Your task to perform on an android device: search for accent chairs on article.com Image 0: 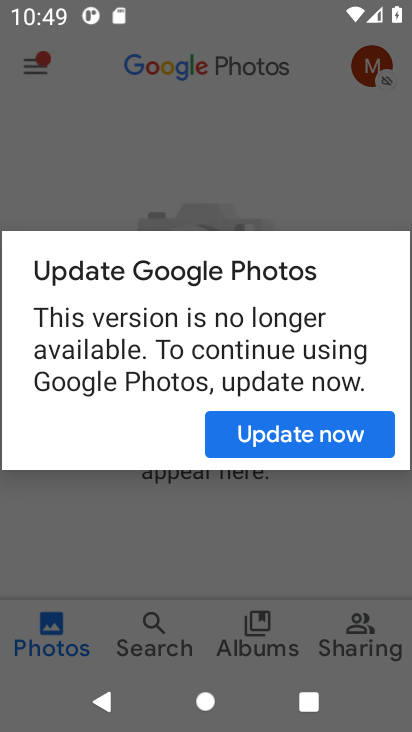
Step 0: press home button
Your task to perform on an android device: search for accent chairs on article.com Image 1: 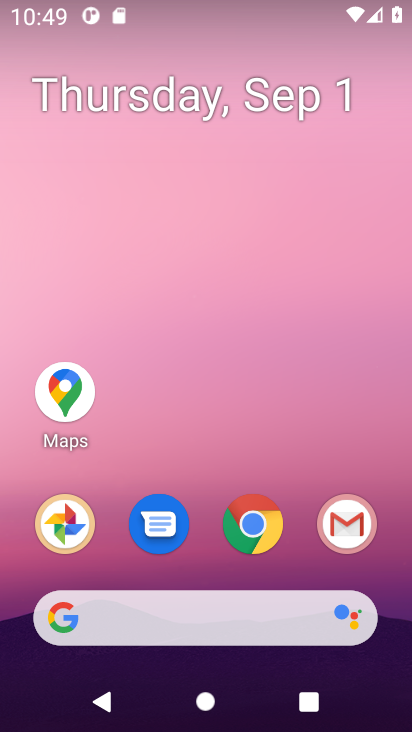
Step 1: click (218, 617)
Your task to perform on an android device: search for accent chairs on article.com Image 2: 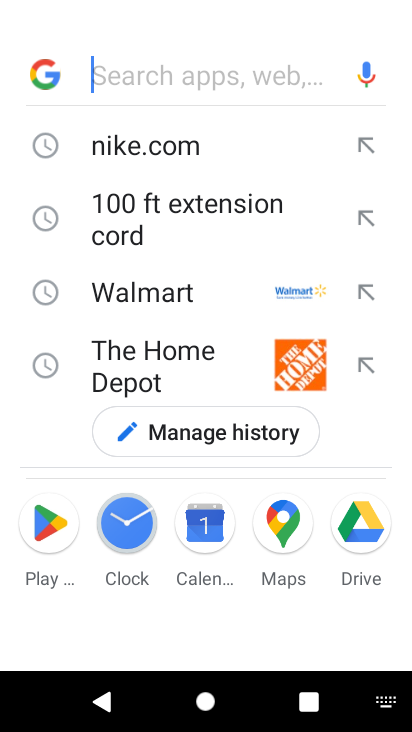
Step 2: type "article.com"
Your task to perform on an android device: search for accent chairs on article.com Image 3: 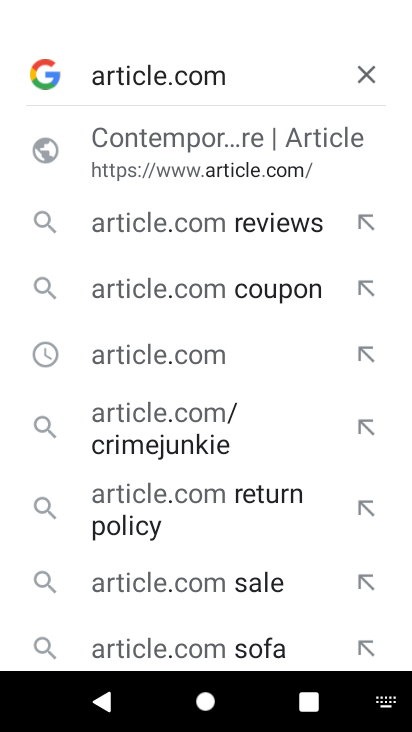
Step 3: press enter
Your task to perform on an android device: search for accent chairs on article.com Image 4: 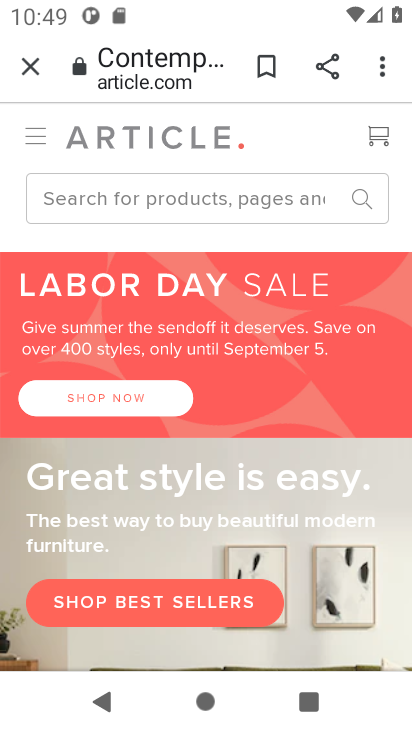
Step 4: click (175, 206)
Your task to perform on an android device: search for accent chairs on article.com Image 5: 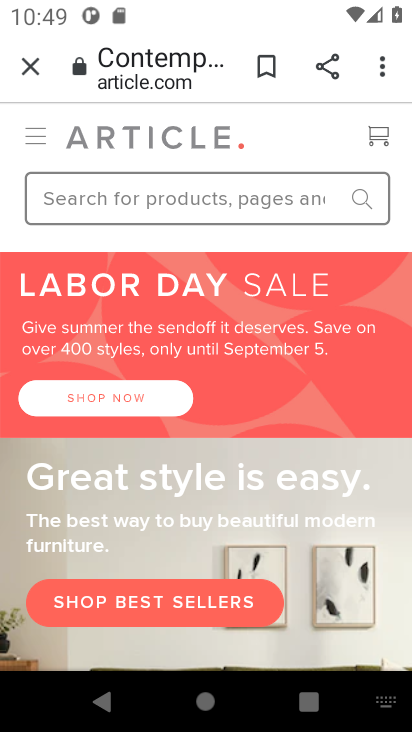
Step 5: press enter
Your task to perform on an android device: search for accent chairs on article.com Image 6: 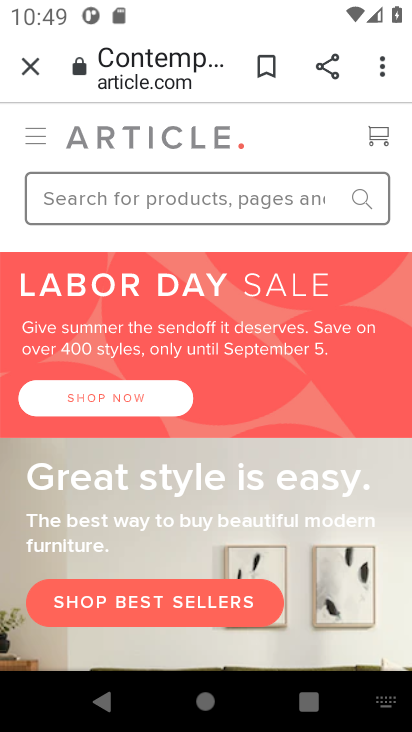
Step 6: type "accent chairs"
Your task to perform on an android device: search for accent chairs on article.com Image 7: 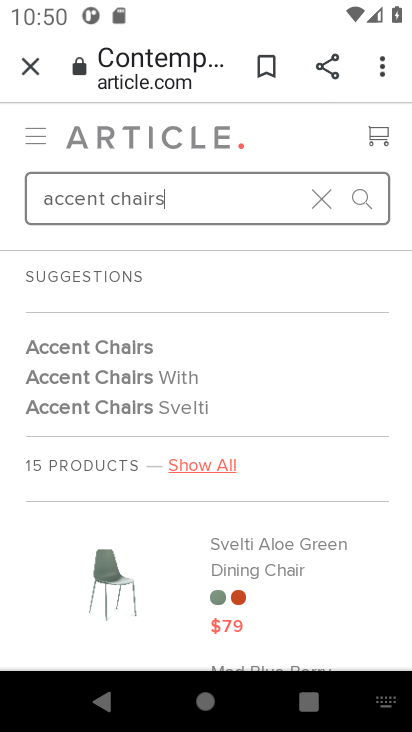
Step 7: click (129, 345)
Your task to perform on an android device: search for accent chairs on article.com Image 8: 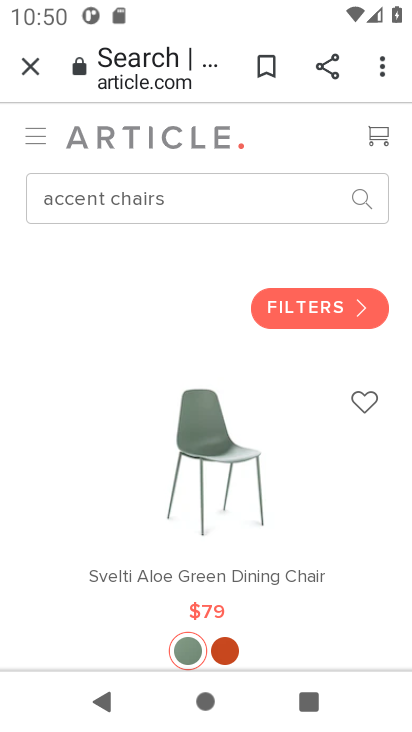
Step 8: task complete